Your task to perform on an android device: What's on my calendar today? Image 0: 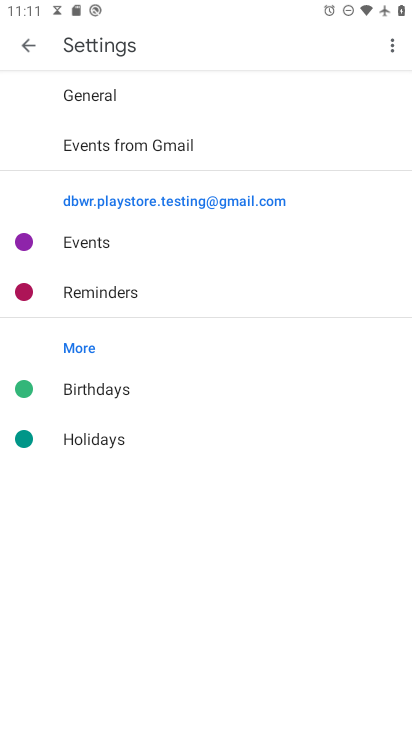
Step 0: press home button
Your task to perform on an android device: What's on my calendar today? Image 1: 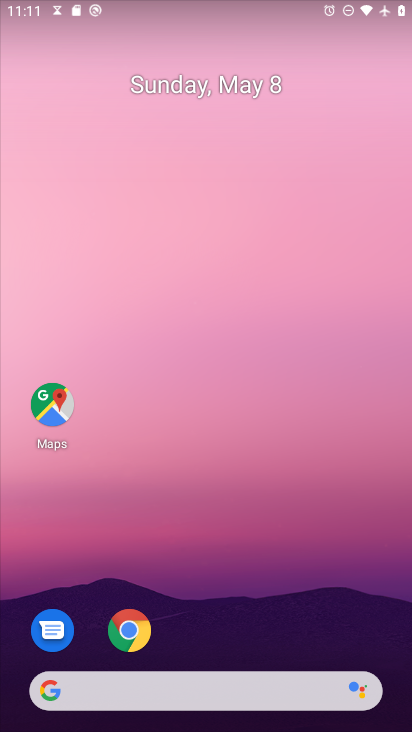
Step 1: drag from (183, 688) to (252, 173)
Your task to perform on an android device: What's on my calendar today? Image 2: 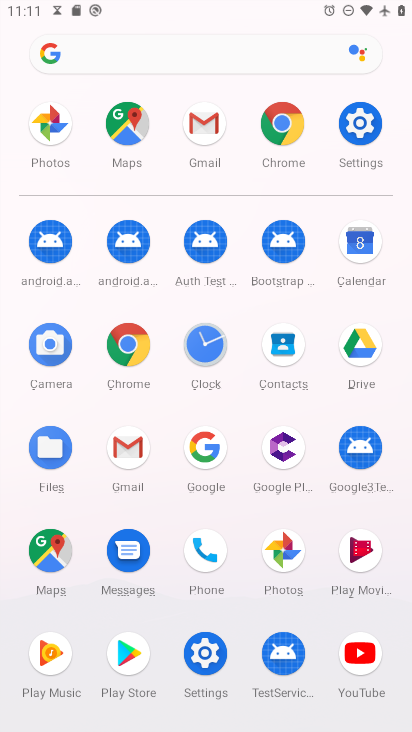
Step 2: click (352, 259)
Your task to perform on an android device: What's on my calendar today? Image 3: 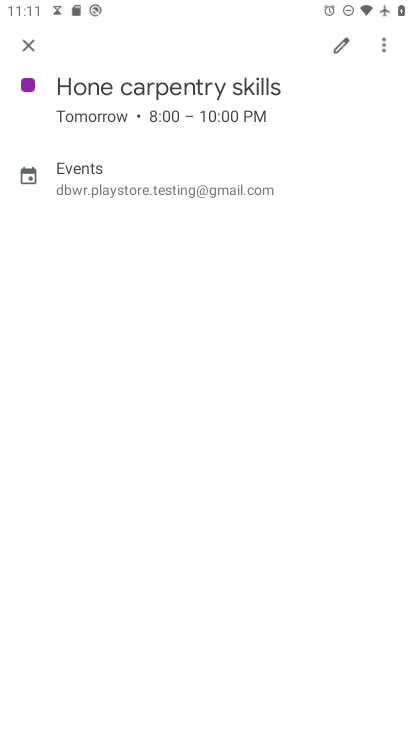
Step 3: click (26, 43)
Your task to perform on an android device: What's on my calendar today? Image 4: 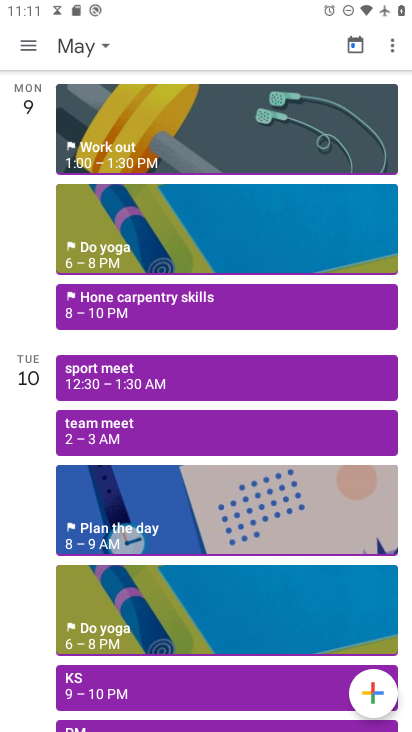
Step 4: click (79, 44)
Your task to perform on an android device: What's on my calendar today? Image 5: 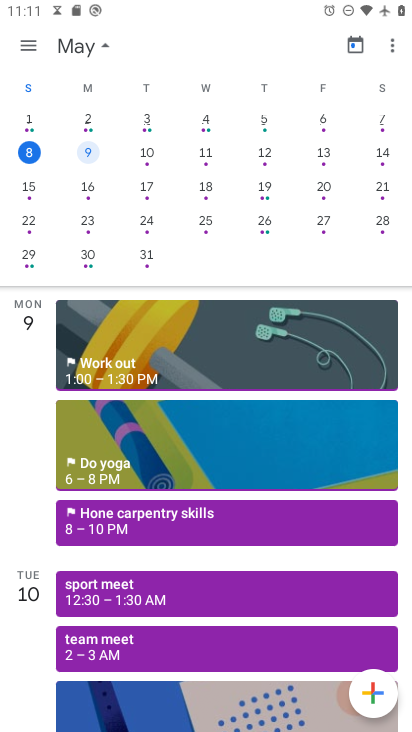
Step 5: click (33, 153)
Your task to perform on an android device: What's on my calendar today? Image 6: 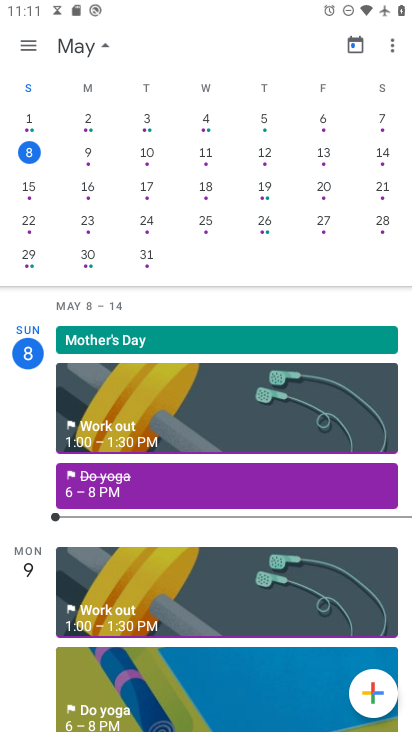
Step 6: click (31, 39)
Your task to perform on an android device: What's on my calendar today? Image 7: 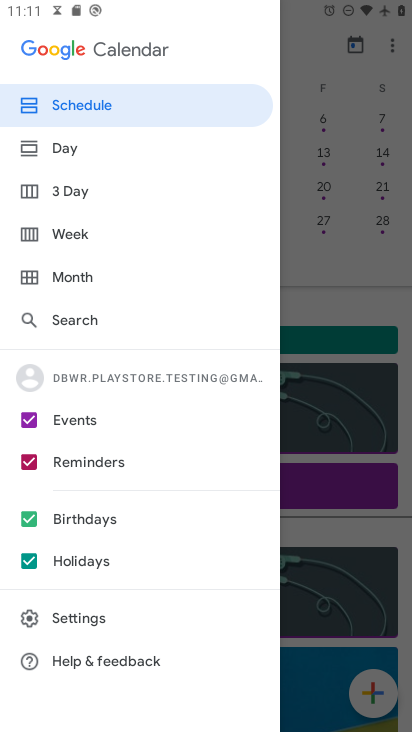
Step 7: click (115, 101)
Your task to perform on an android device: What's on my calendar today? Image 8: 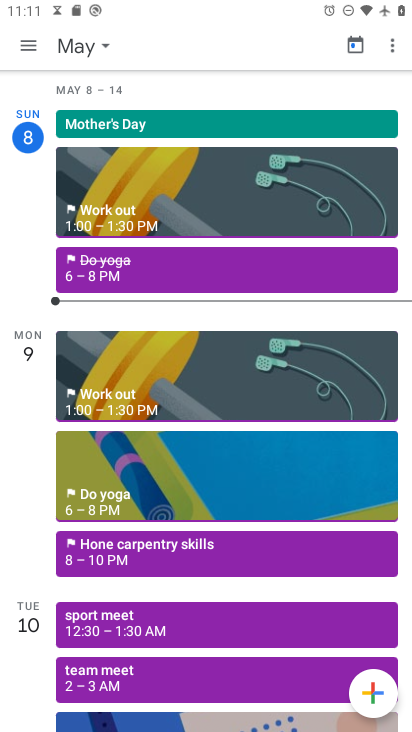
Step 8: click (122, 274)
Your task to perform on an android device: What's on my calendar today? Image 9: 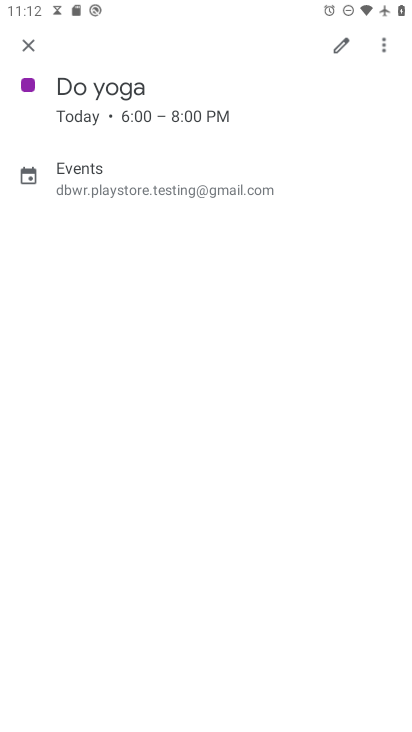
Step 9: task complete